Your task to perform on an android device: Set the phone to "Do not disturb". Image 0: 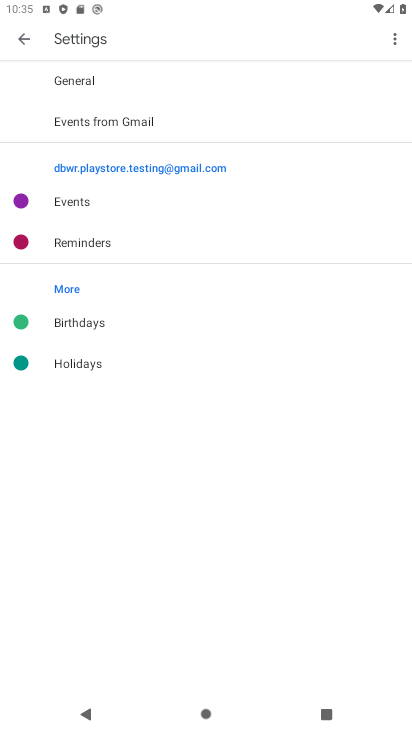
Step 0: task complete